Your task to perform on an android device: Play the last video I watched on Youtube Image 0: 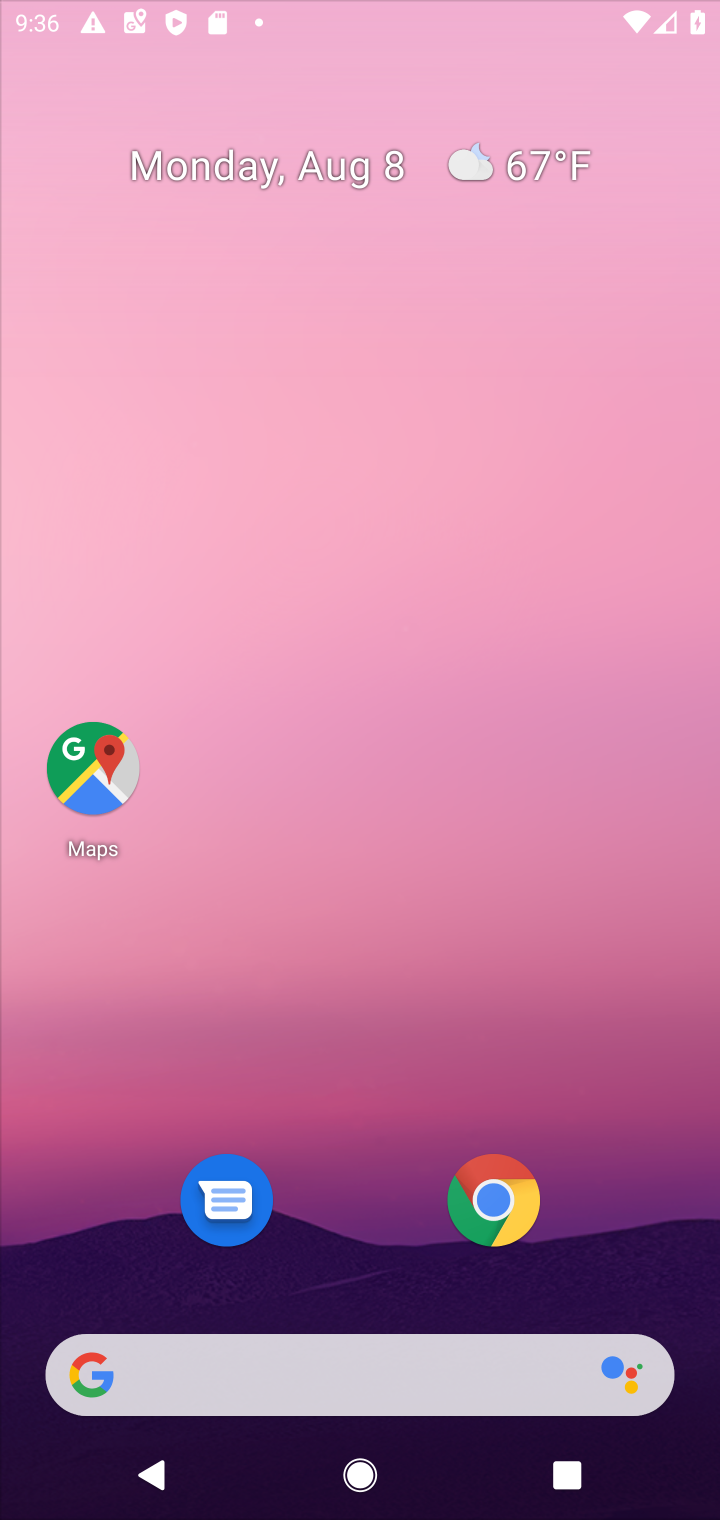
Step 0: press home button
Your task to perform on an android device: Play the last video I watched on Youtube Image 1: 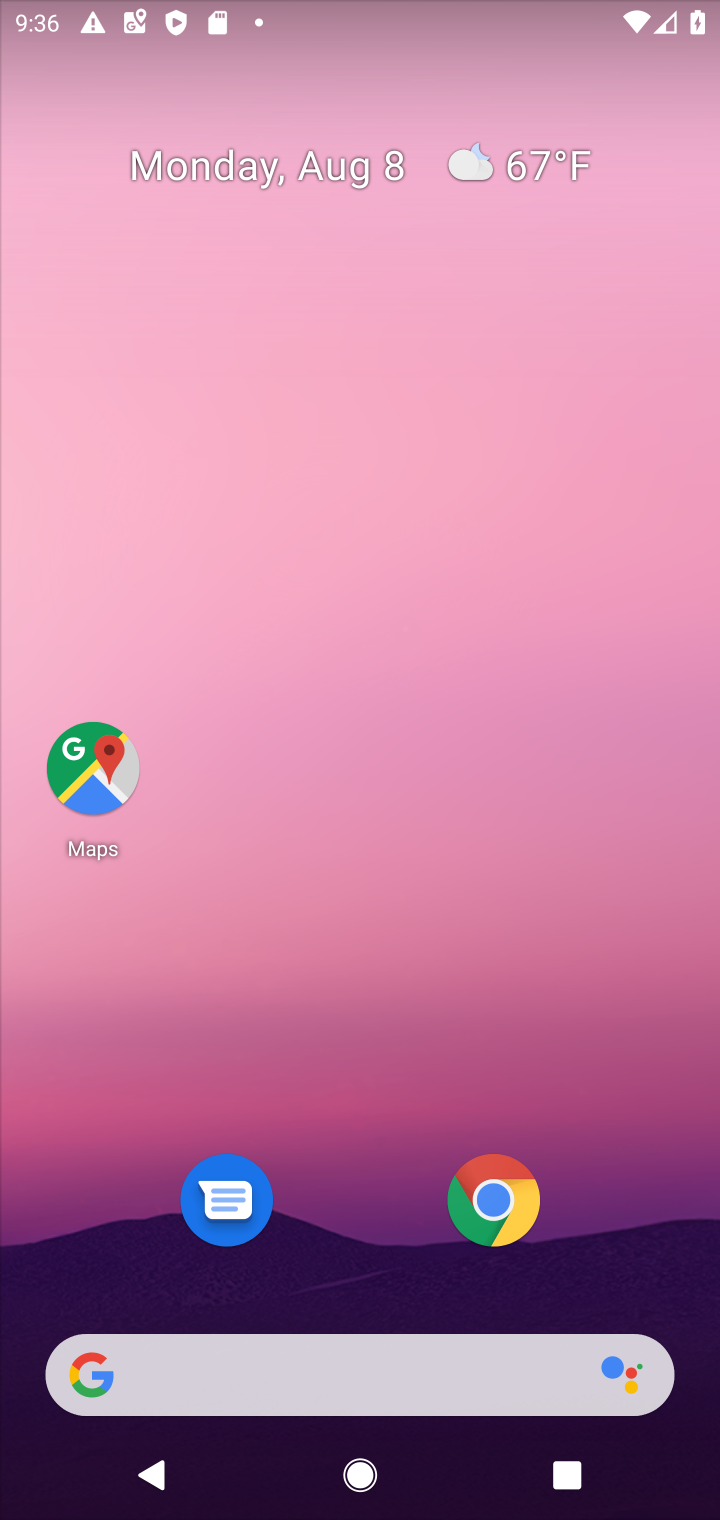
Step 1: drag from (325, 1380) to (565, 333)
Your task to perform on an android device: Play the last video I watched on Youtube Image 2: 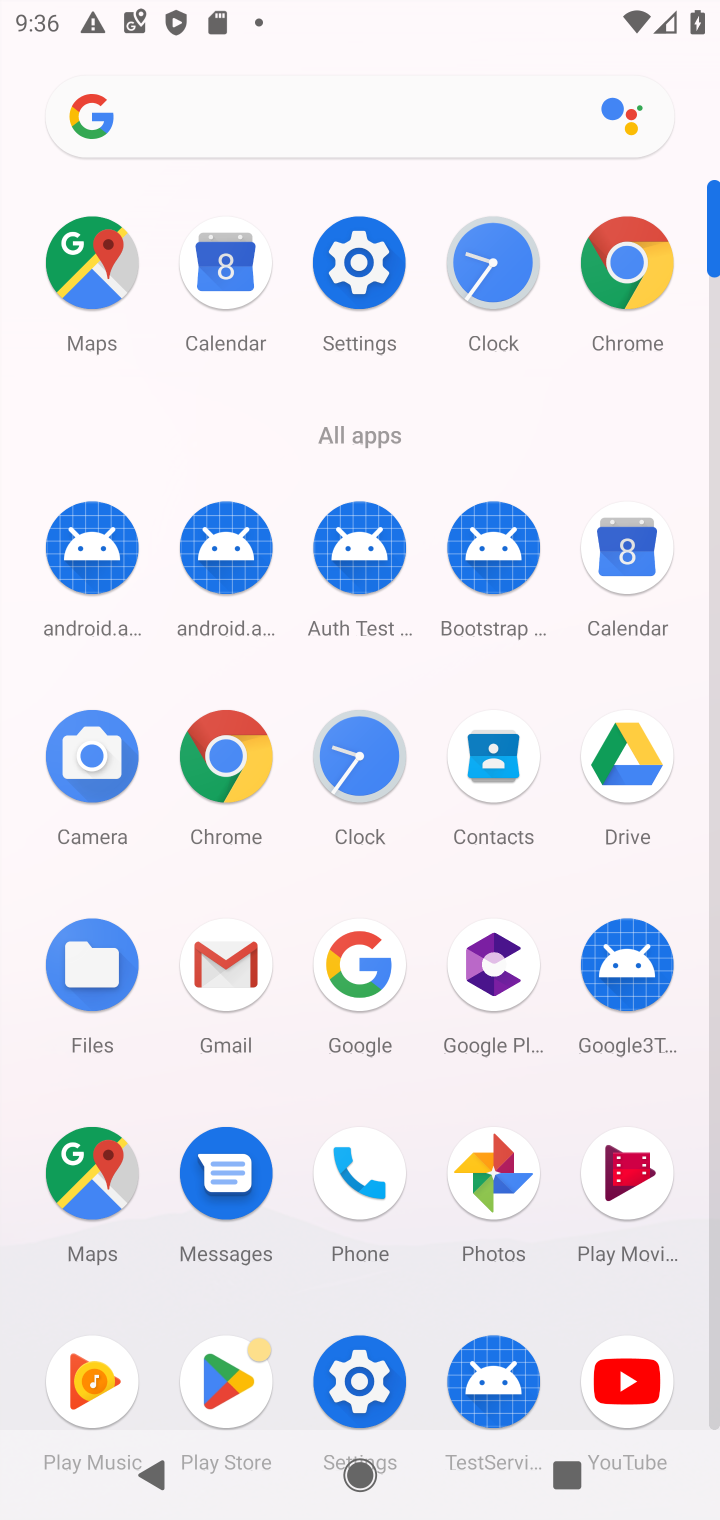
Step 2: click (634, 1396)
Your task to perform on an android device: Play the last video I watched on Youtube Image 3: 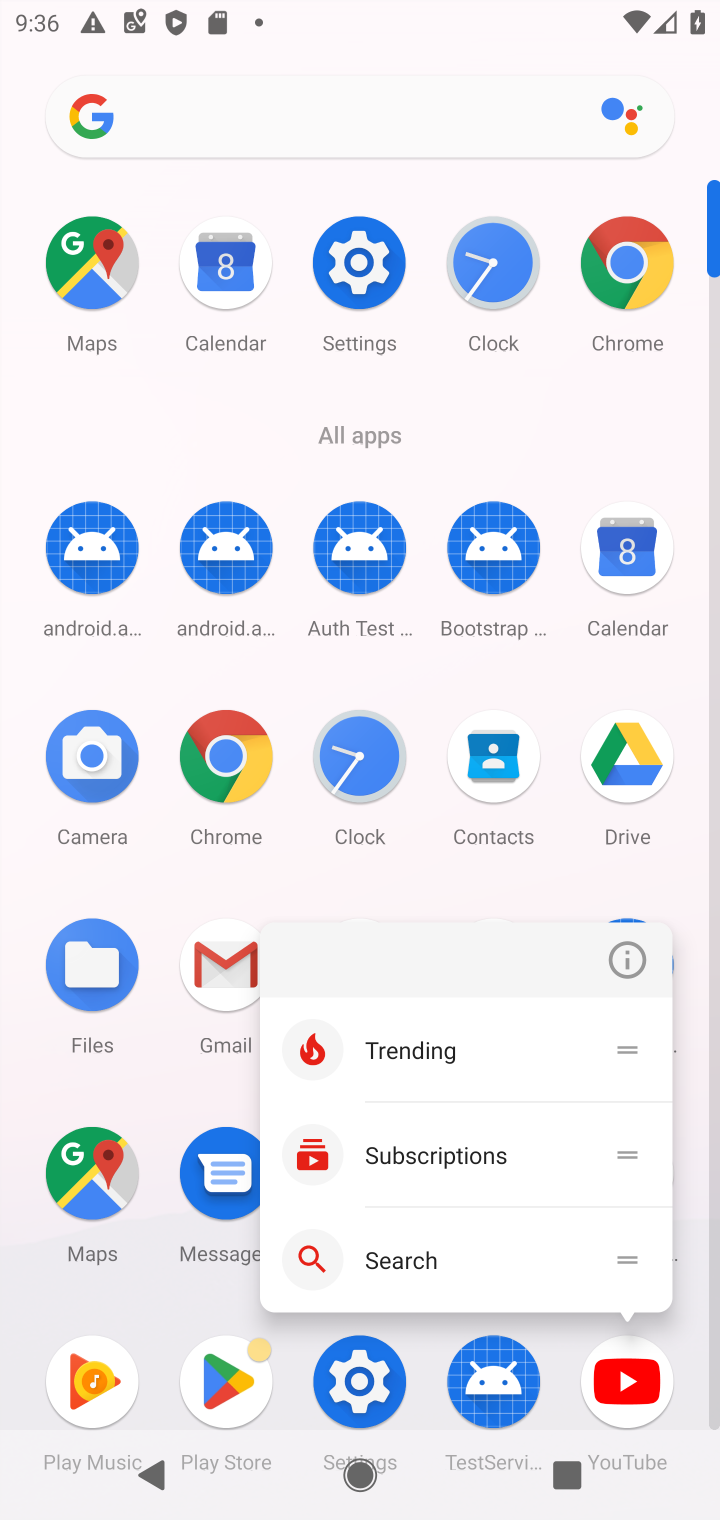
Step 3: click (621, 1399)
Your task to perform on an android device: Play the last video I watched on Youtube Image 4: 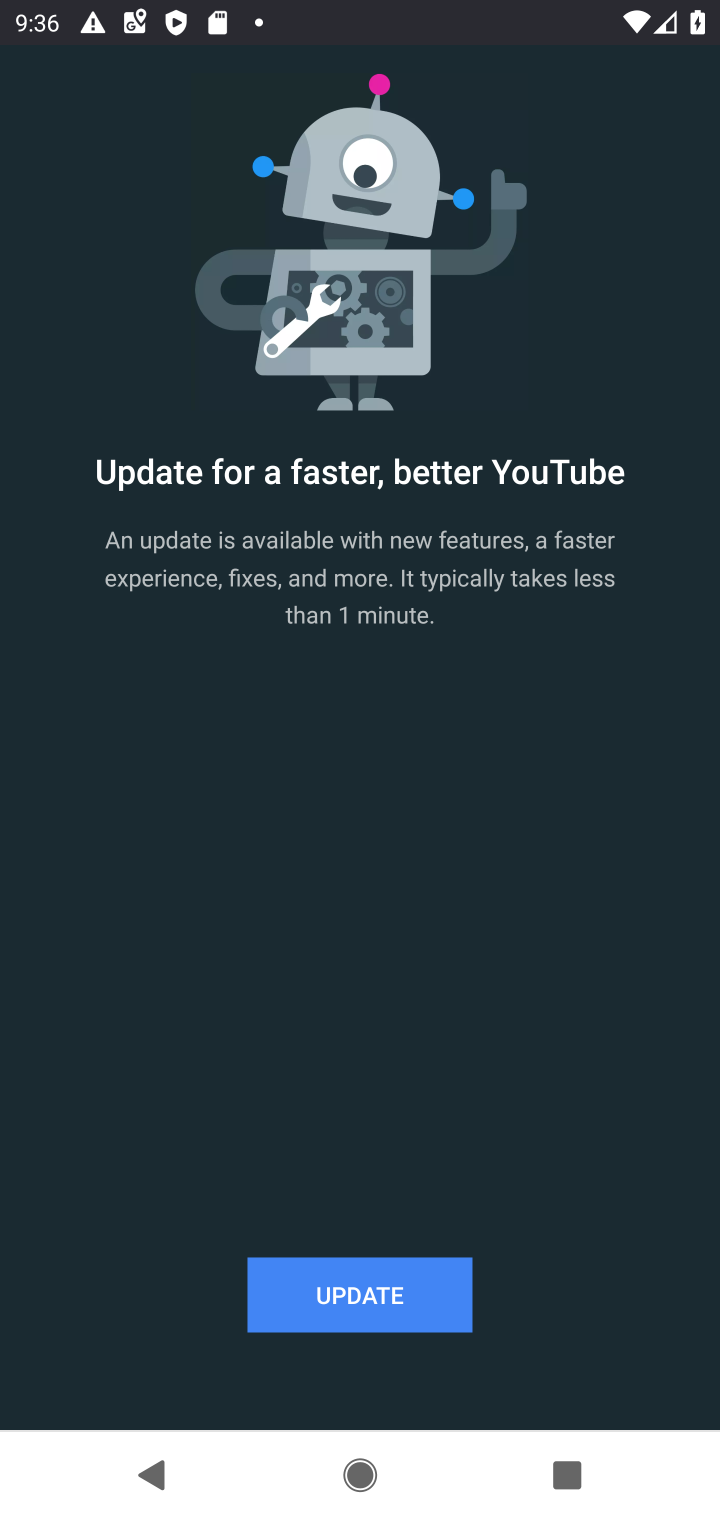
Step 4: click (410, 1293)
Your task to perform on an android device: Play the last video I watched on Youtube Image 5: 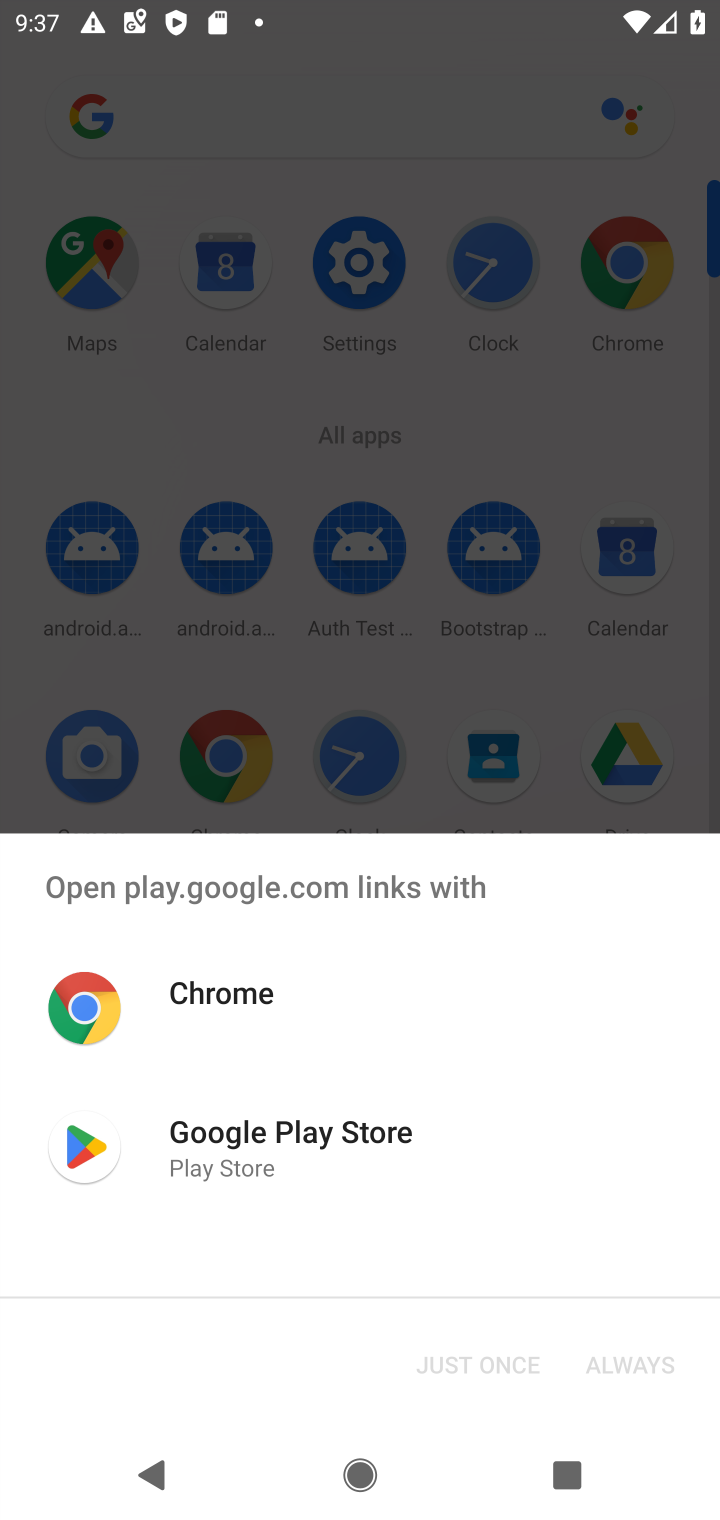
Step 5: click (251, 1130)
Your task to perform on an android device: Play the last video I watched on Youtube Image 6: 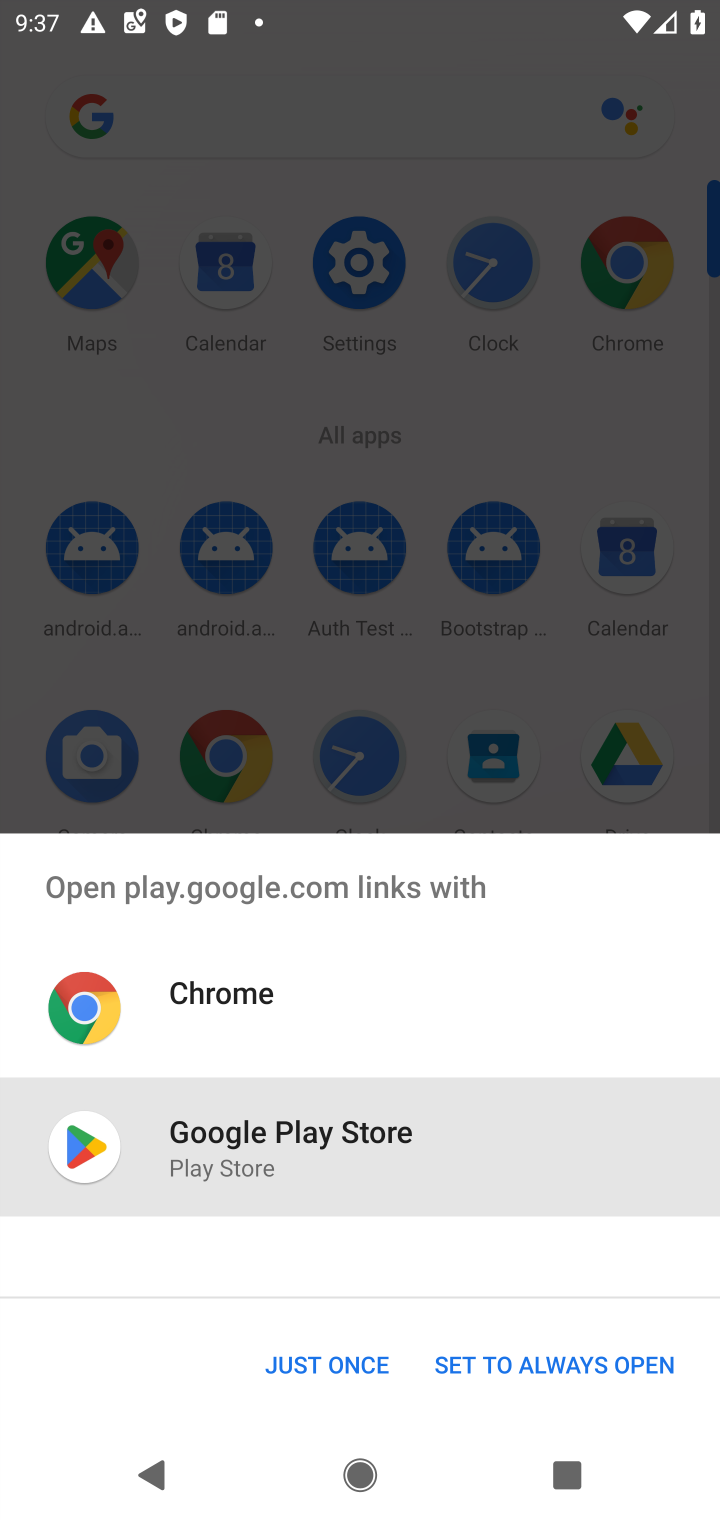
Step 6: click (320, 1355)
Your task to perform on an android device: Play the last video I watched on Youtube Image 7: 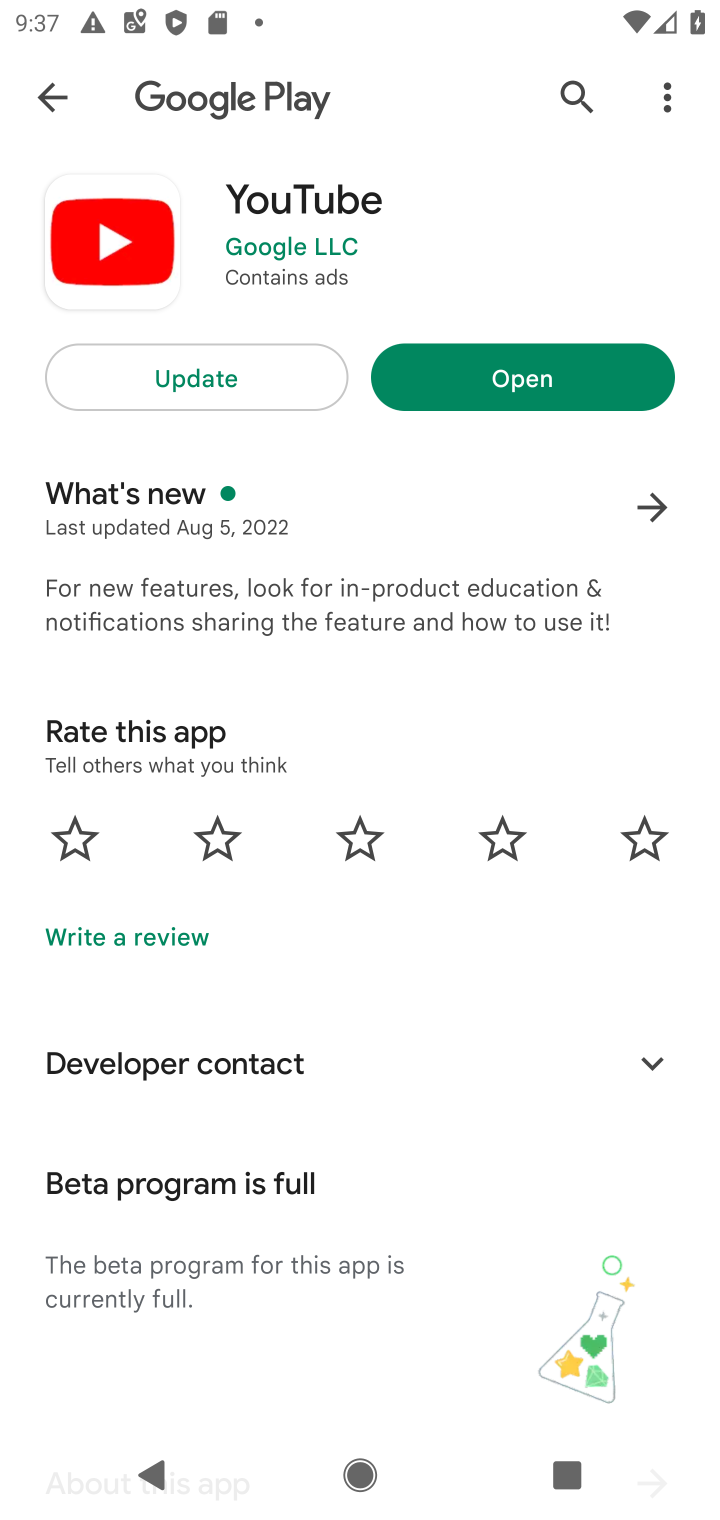
Step 7: click (242, 371)
Your task to perform on an android device: Play the last video I watched on Youtube Image 8: 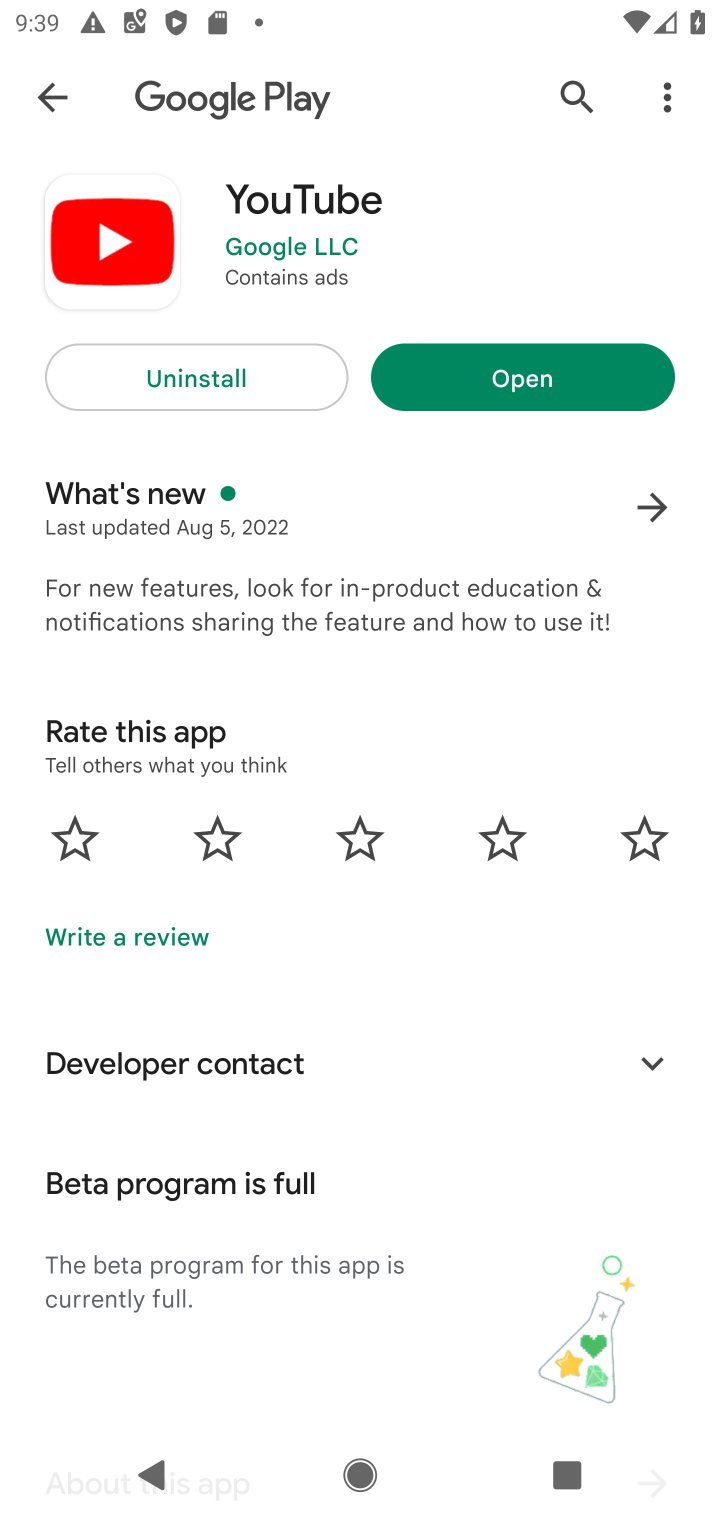
Step 8: click (536, 386)
Your task to perform on an android device: Play the last video I watched on Youtube Image 9: 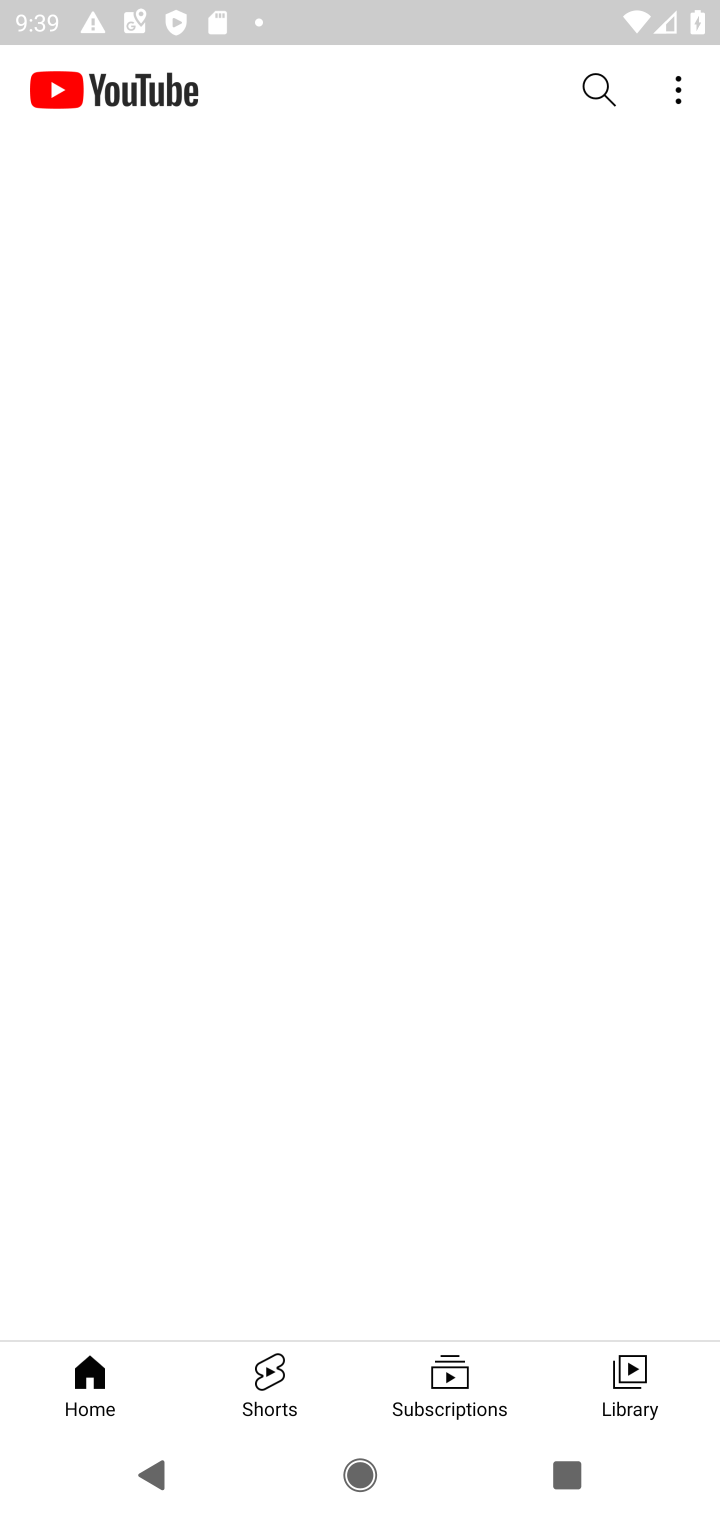
Step 9: click (629, 1376)
Your task to perform on an android device: Play the last video I watched on Youtube Image 10: 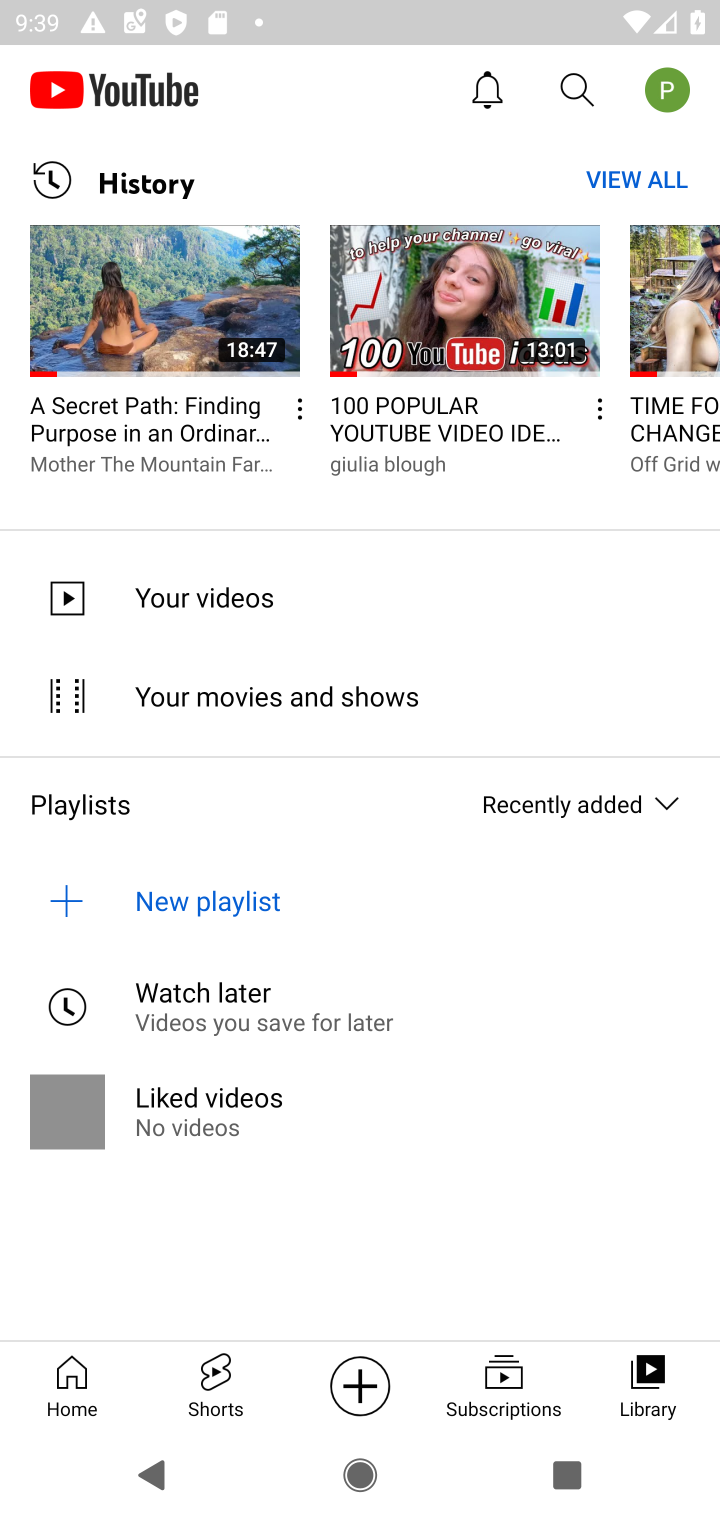
Step 10: click (205, 295)
Your task to perform on an android device: Play the last video I watched on Youtube Image 11: 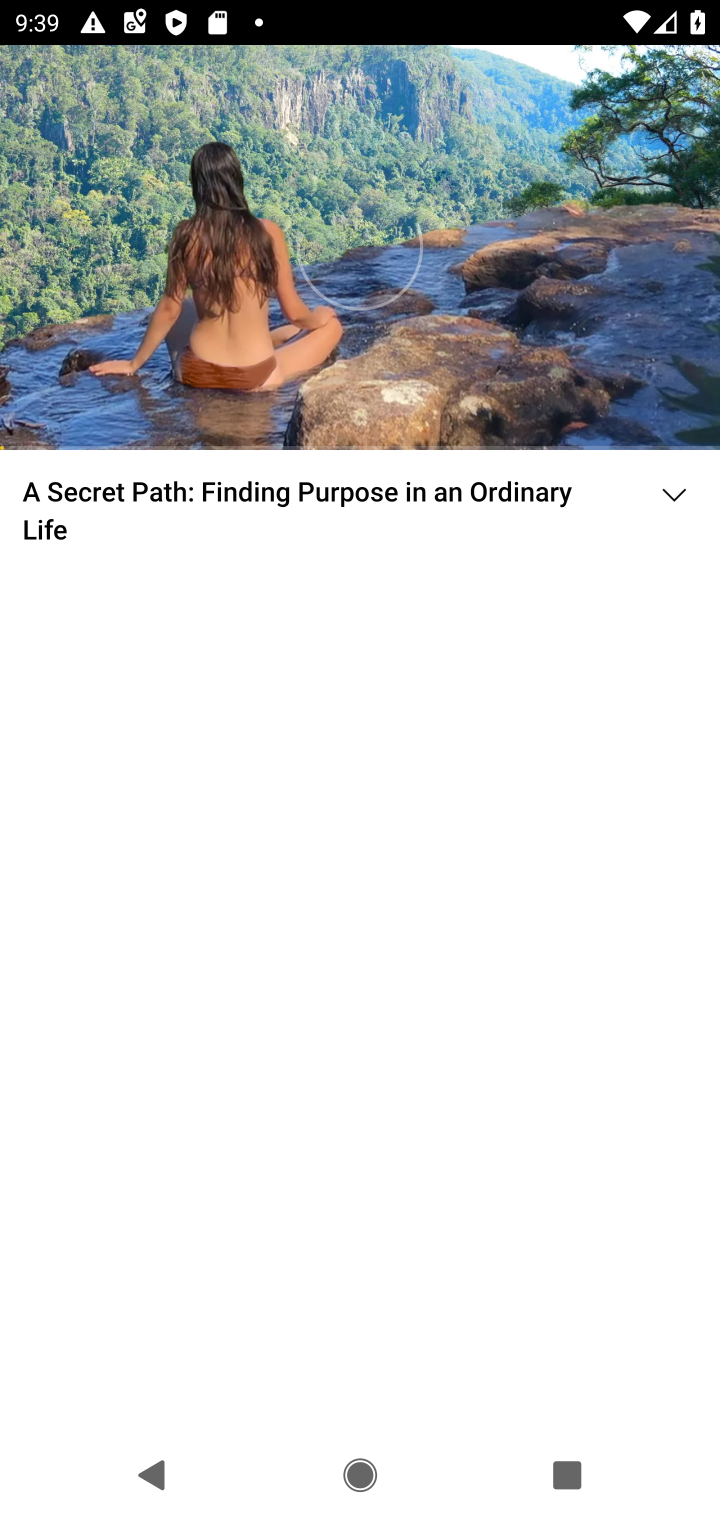
Step 11: click (353, 254)
Your task to perform on an android device: Play the last video I watched on Youtube Image 12: 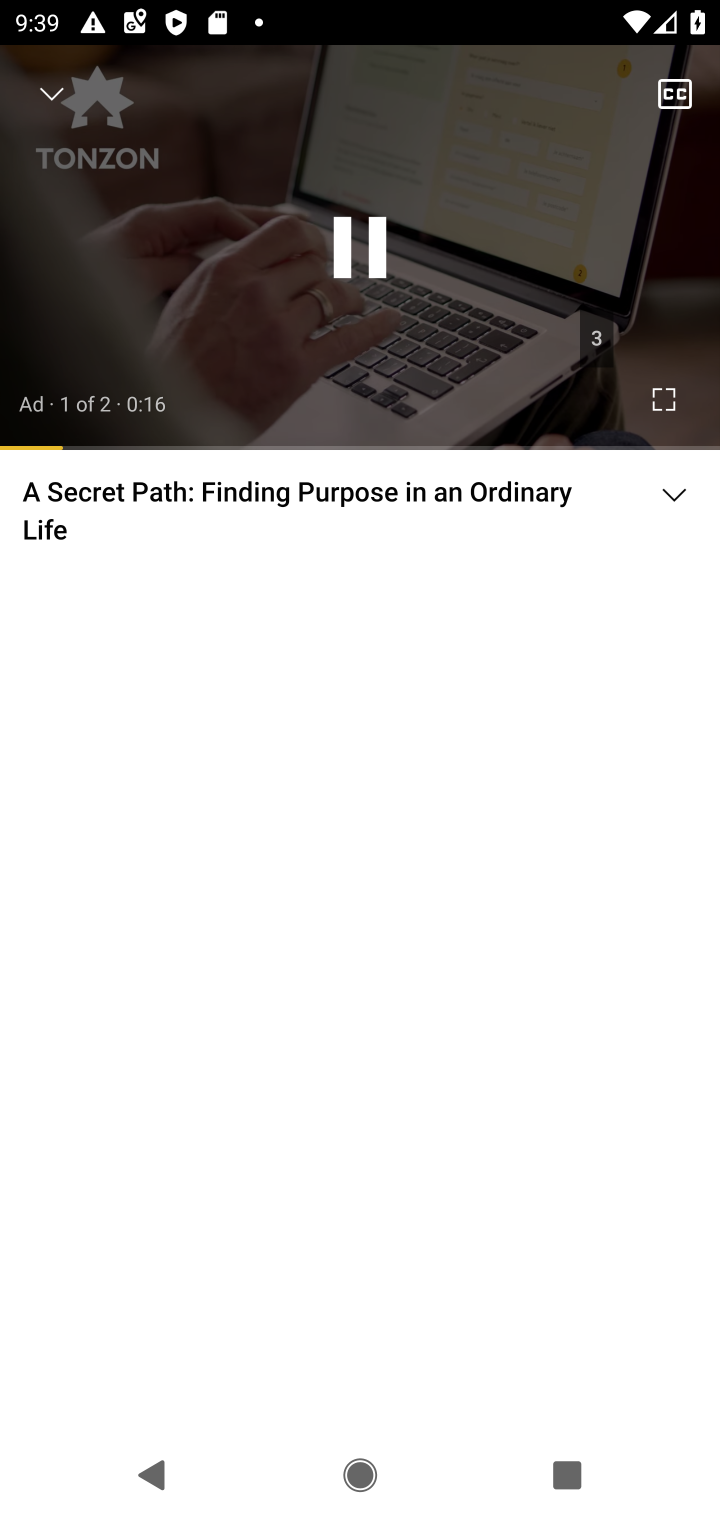
Step 12: click (355, 243)
Your task to perform on an android device: Play the last video I watched on Youtube Image 13: 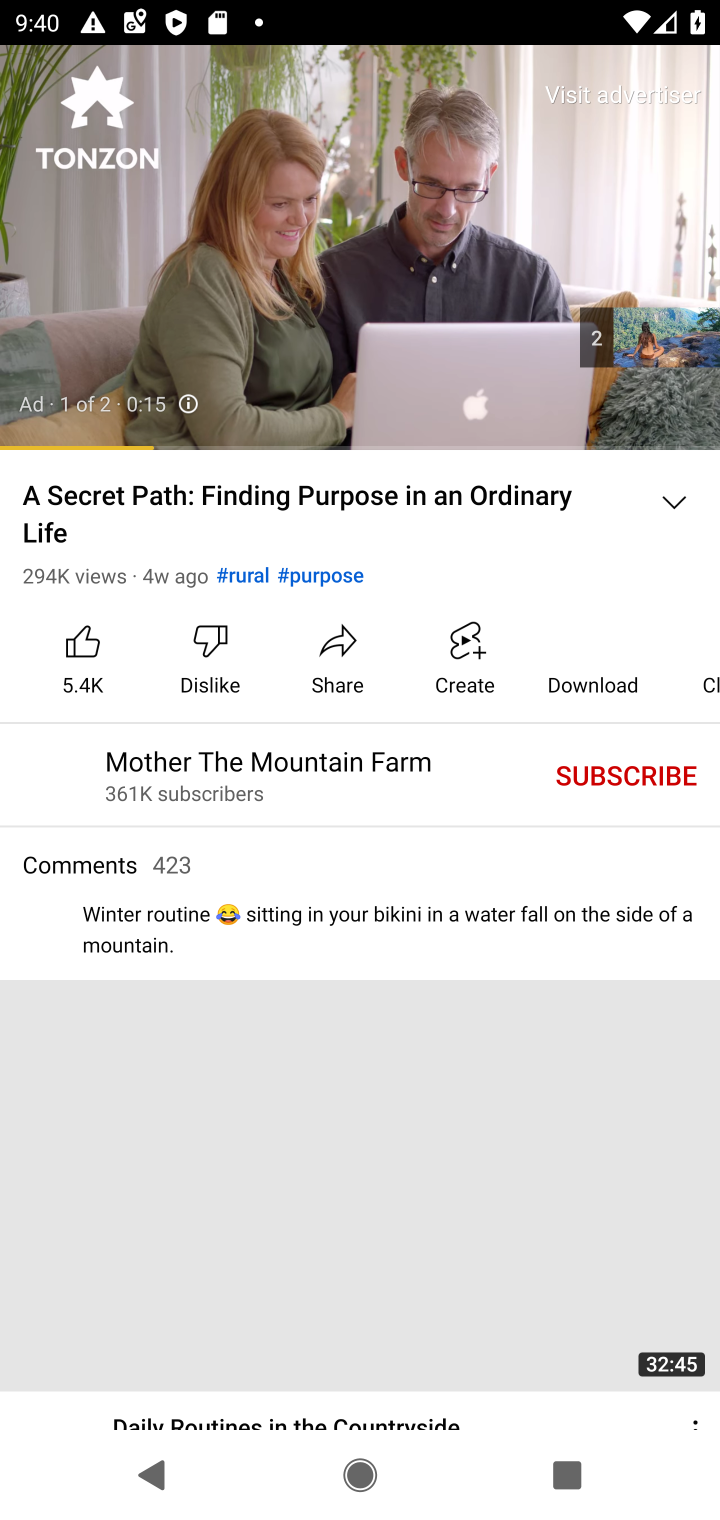
Step 13: task complete